Your task to perform on an android device: toggle sleep mode Image 0: 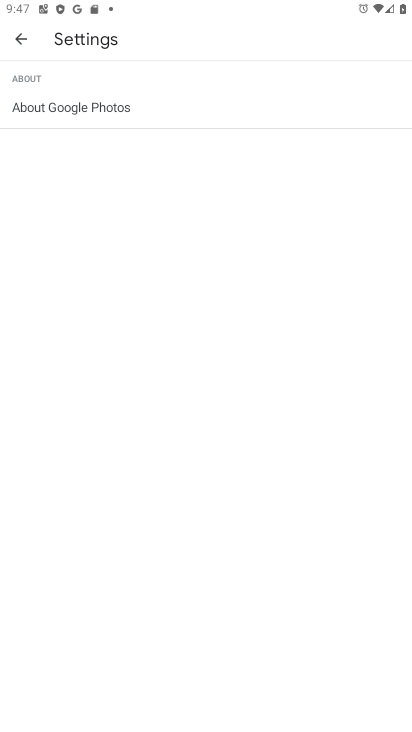
Step 0: press home button
Your task to perform on an android device: toggle sleep mode Image 1: 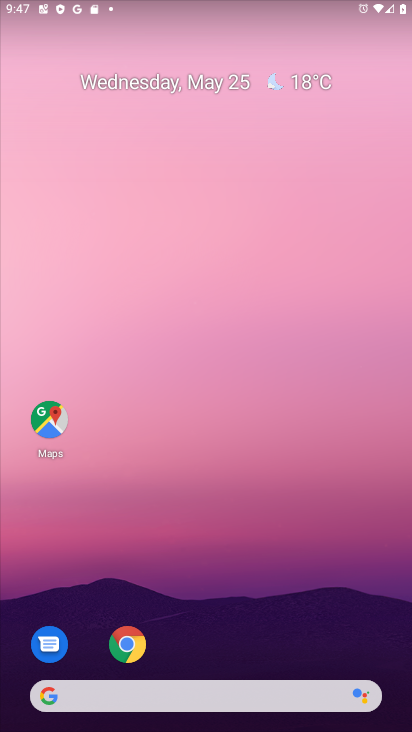
Step 1: drag from (224, 668) to (228, 73)
Your task to perform on an android device: toggle sleep mode Image 2: 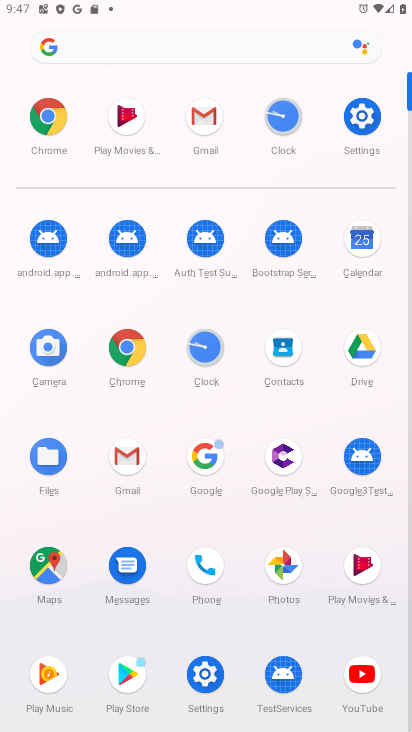
Step 2: click (359, 113)
Your task to perform on an android device: toggle sleep mode Image 3: 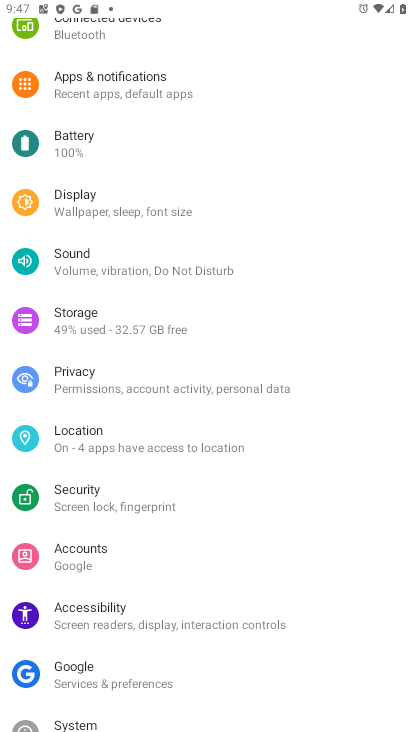
Step 3: click (116, 193)
Your task to perform on an android device: toggle sleep mode Image 4: 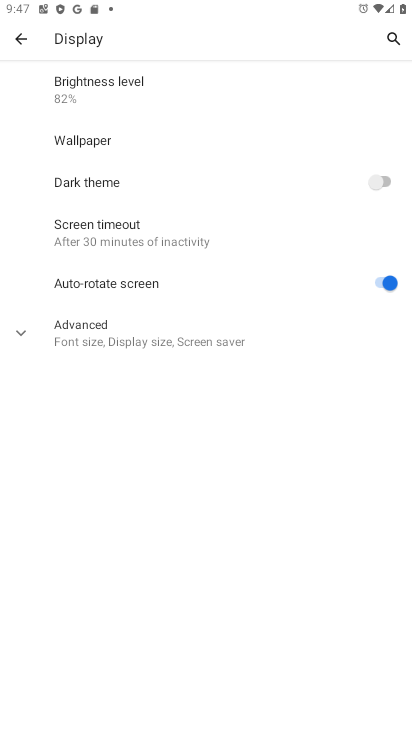
Step 4: click (20, 330)
Your task to perform on an android device: toggle sleep mode Image 5: 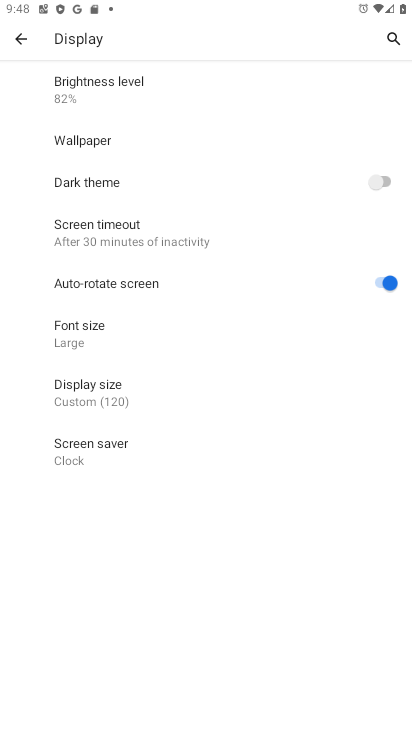
Step 5: task complete